Your task to perform on an android device: toggle priority inbox in the gmail app Image 0: 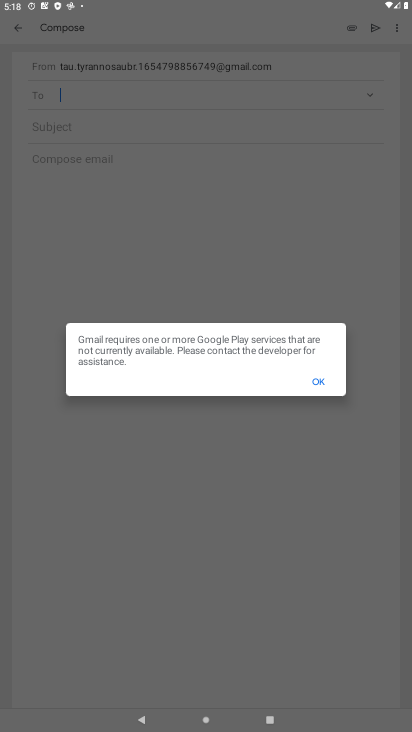
Step 0: press home button
Your task to perform on an android device: toggle priority inbox in the gmail app Image 1: 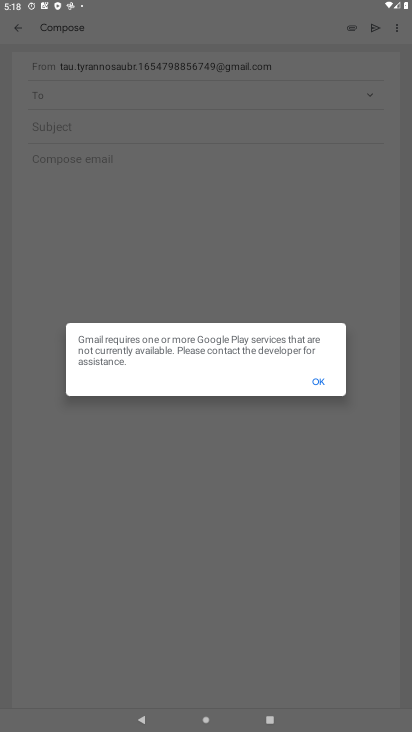
Step 1: drag from (377, 673) to (266, 165)
Your task to perform on an android device: toggle priority inbox in the gmail app Image 2: 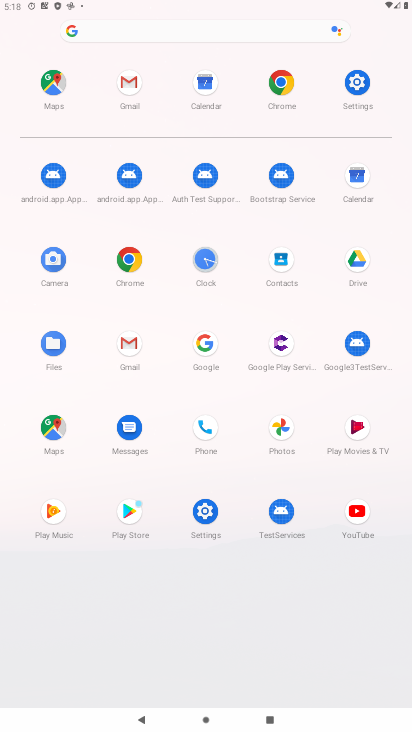
Step 2: click (128, 353)
Your task to perform on an android device: toggle priority inbox in the gmail app Image 3: 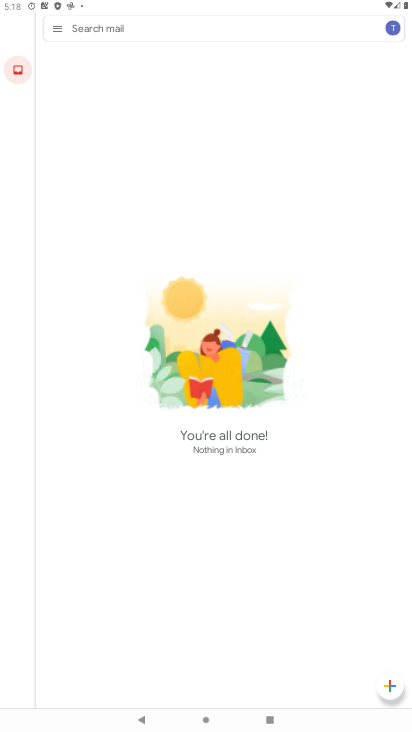
Step 3: click (55, 30)
Your task to perform on an android device: toggle priority inbox in the gmail app Image 4: 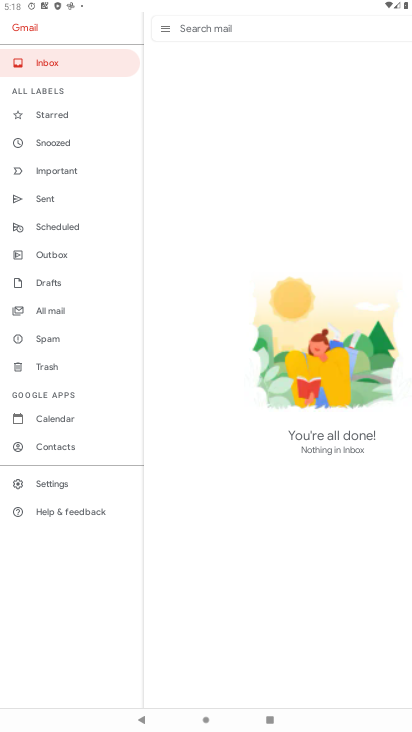
Step 4: click (65, 485)
Your task to perform on an android device: toggle priority inbox in the gmail app Image 5: 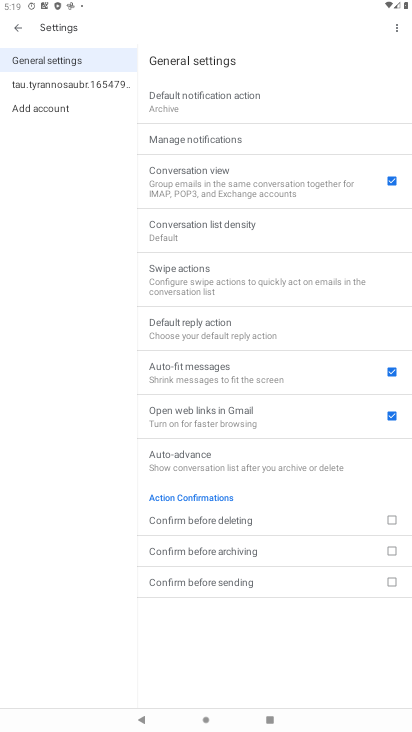
Step 5: click (62, 82)
Your task to perform on an android device: toggle priority inbox in the gmail app Image 6: 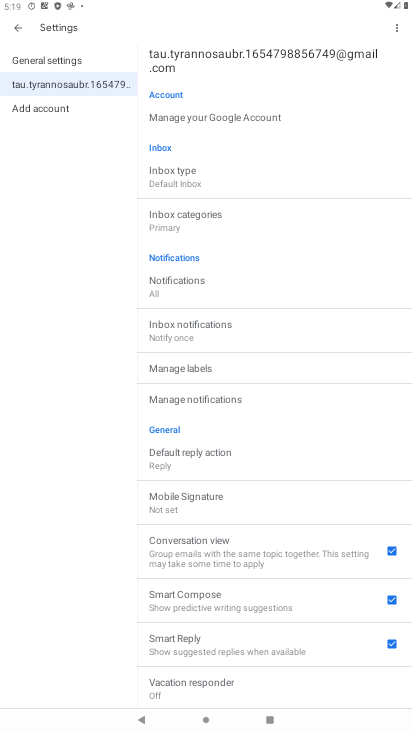
Step 6: click (198, 183)
Your task to perform on an android device: toggle priority inbox in the gmail app Image 7: 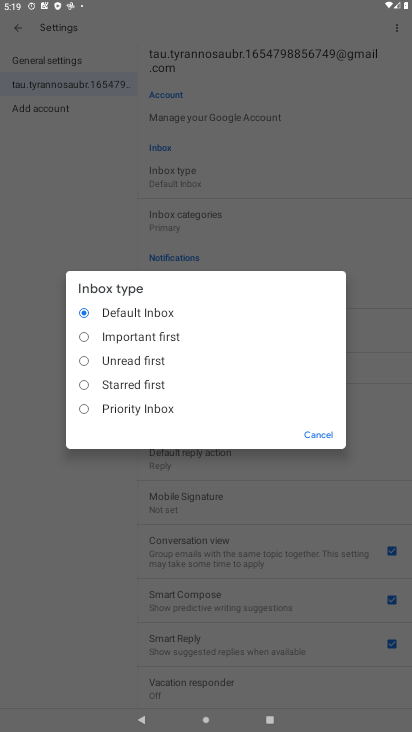
Step 7: task complete